Your task to perform on an android device: Open the Play Movies app and select the watchlist tab. Image 0: 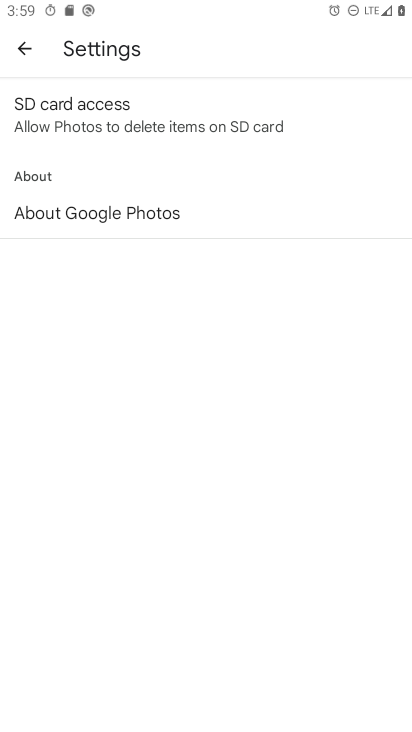
Step 0: press home button
Your task to perform on an android device: Open the Play Movies app and select the watchlist tab. Image 1: 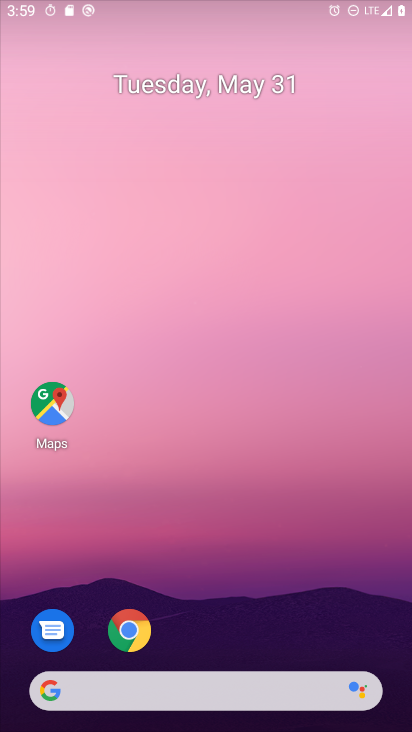
Step 1: drag from (258, 700) to (317, 23)
Your task to perform on an android device: Open the Play Movies app and select the watchlist tab. Image 2: 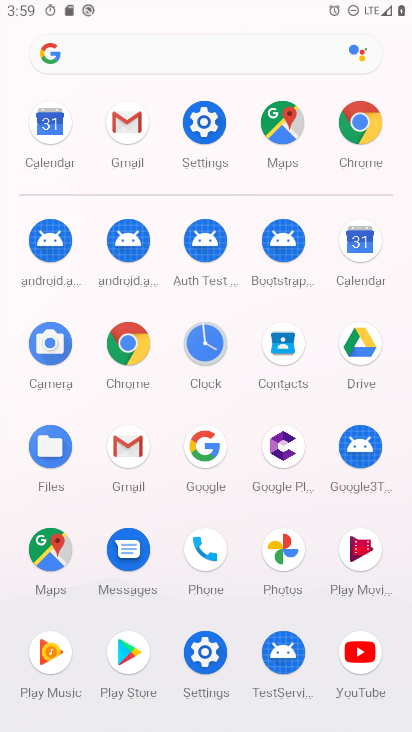
Step 2: click (354, 556)
Your task to perform on an android device: Open the Play Movies app and select the watchlist tab. Image 3: 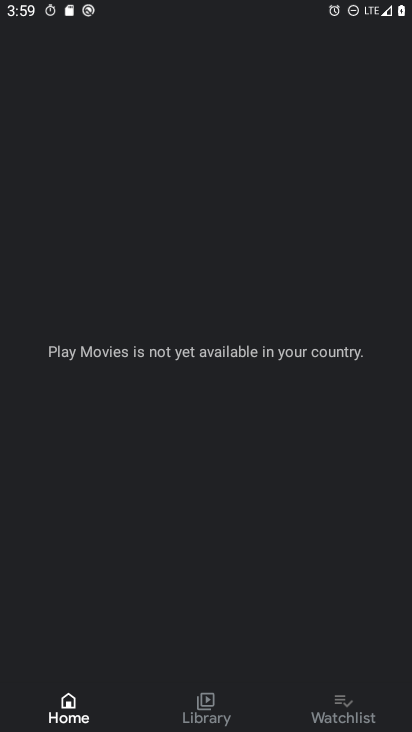
Step 3: click (329, 702)
Your task to perform on an android device: Open the Play Movies app and select the watchlist tab. Image 4: 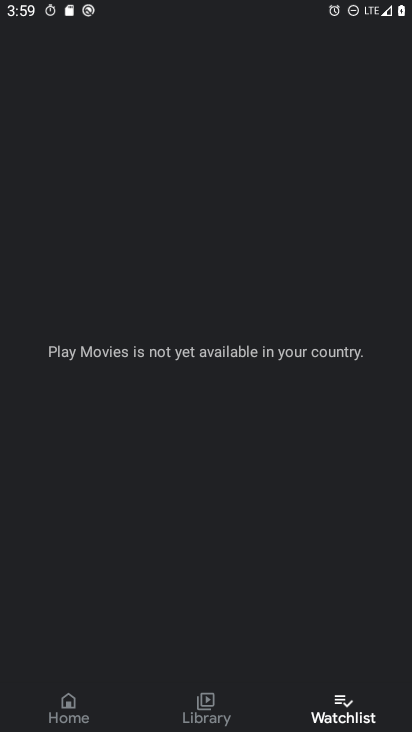
Step 4: task complete